Your task to perform on an android device: change notification settings in the gmail app Image 0: 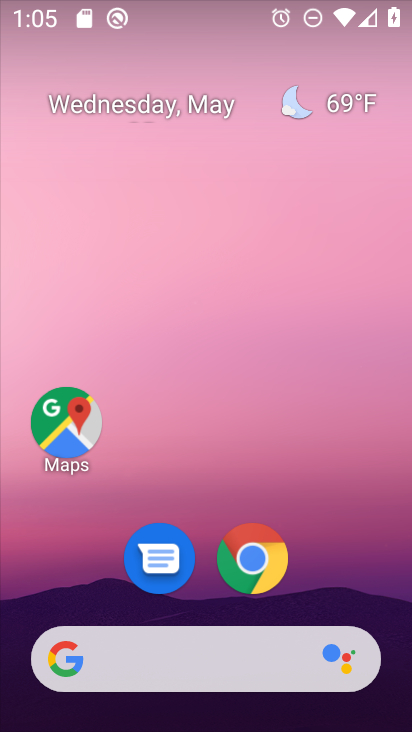
Step 0: drag from (394, 615) to (320, 96)
Your task to perform on an android device: change notification settings in the gmail app Image 1: 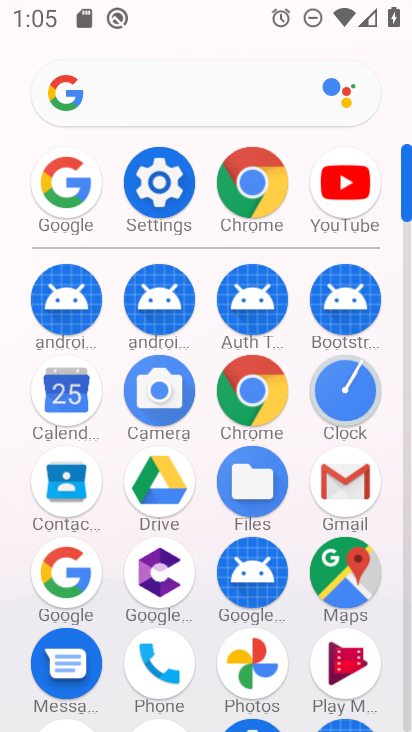
Step 1: click (341, 527)
Your task to perform on an android device: change notification settings in the gmail app Image 2: 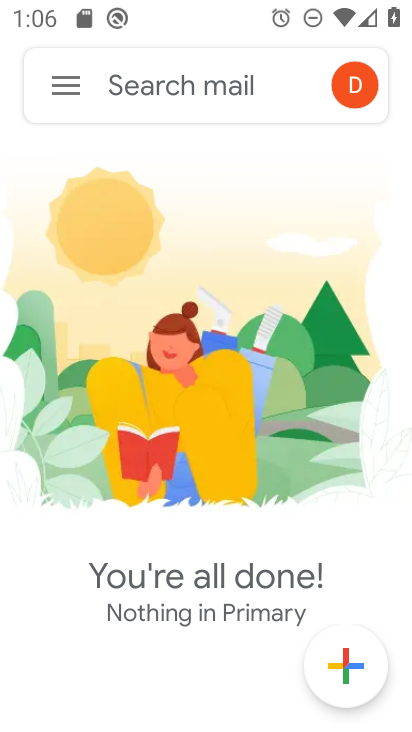
Step 2: click (73, 74)
Your task to perform on an android device: change notification settings in the gmail app Image 3: 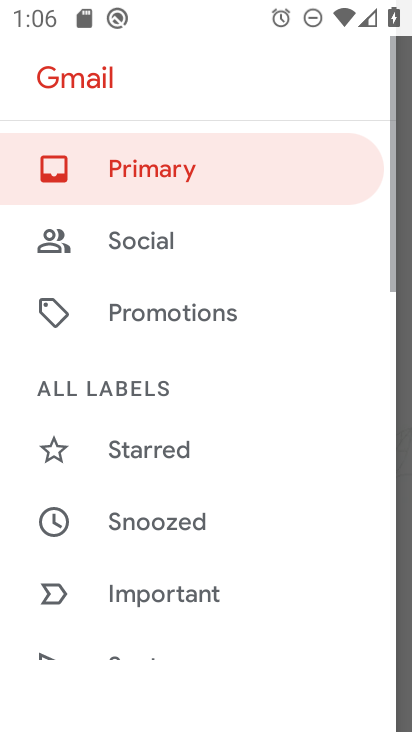
Step 3: drag from (142, 599) to (155, 63)
Your task to perform on an android device: change notification settings in the gmail app Image 4: 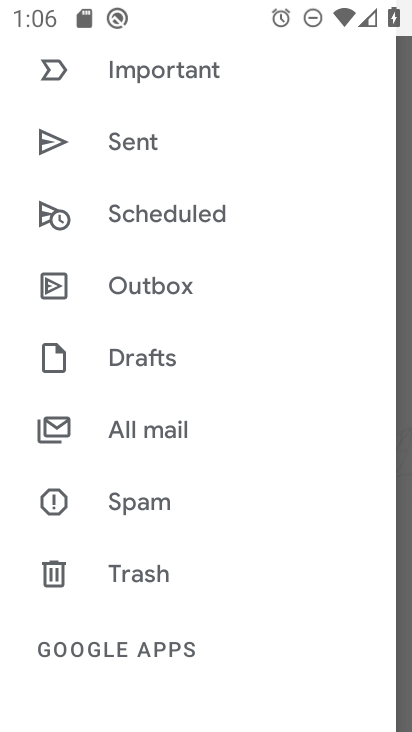
Step 4: drag from (140, 608) to (204, 84)
Your task to perform on an android device: change notification settings in the gmail app Image 5: 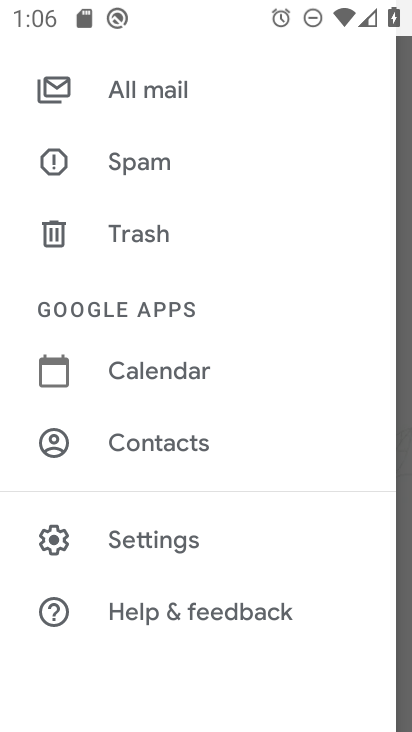
Step 5: click (149, 540)
Your task to perform on an android device: change notification settings in the gmail app Image 6: 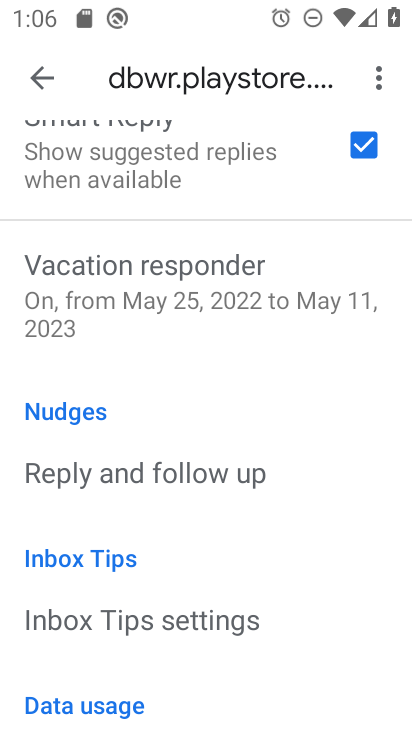
Step 6: drag from (180, 128) to (226, 722)
Your task to perform on an android device: change notification settings in the gmail app Image 7: 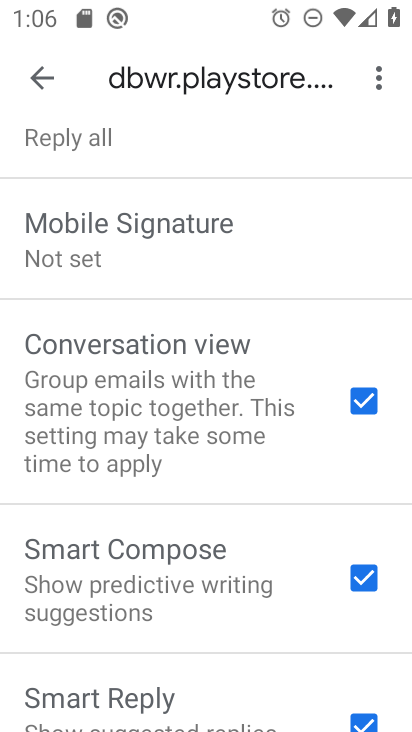
Step 7: drag from (203, 225) to (194, 671)
Your task to perform on an android device: change notification settings in the gmail app Image 8: 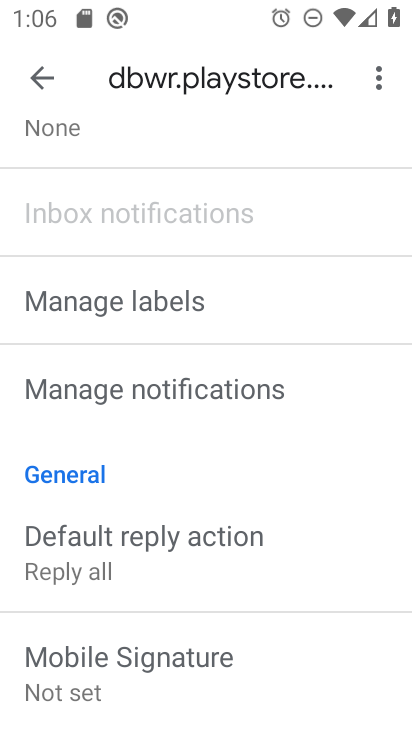
Step 8: drag from (169, 201) to (217, 658)
Your task to perform on an android device: change notification settings in the gmail app Image 9: 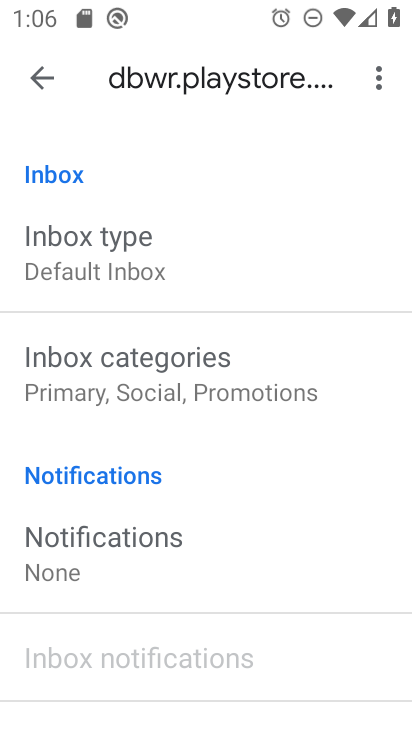
Step 9: click (174, 549)
Your task to perform on an android device: change notification settings in the gmail app Image 10: 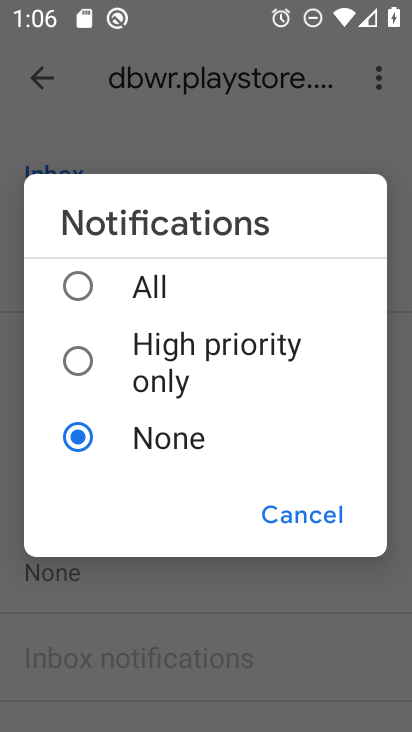
Step 10: click (78, 289)
Your task to perform on an android device: change notification settings in the gmail app Image 11: 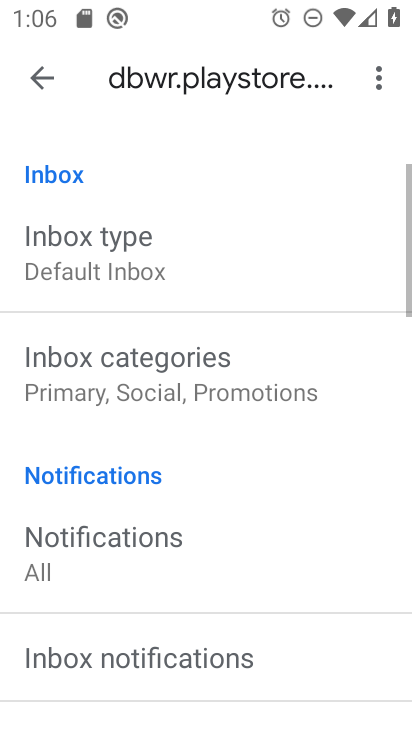
Step 11: task complete